Your task to perform on an android device: Open CNN.com Image 0: 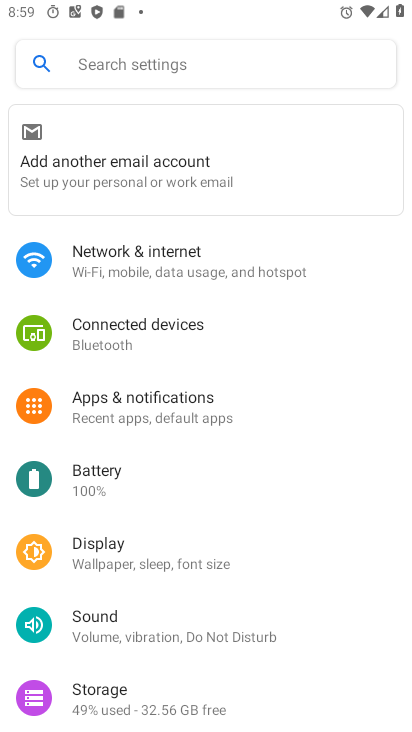
Step 0: press home button
Your task to perform on an android device: Open CNN.com Image 1: 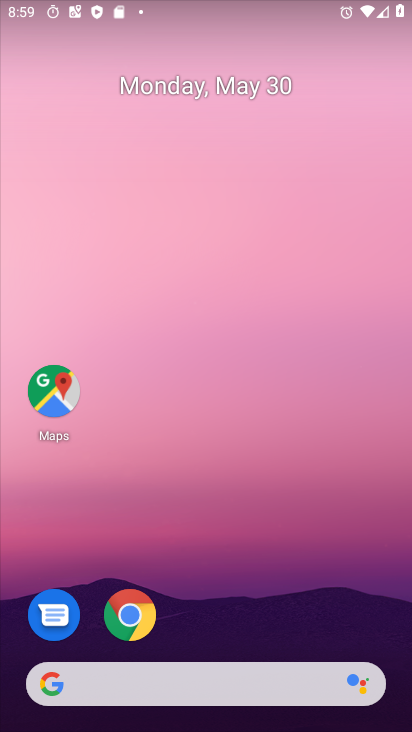
Step 1: drag from (341, 540) to (331, 80)
Your task to perform on an android device: Open CNN.com Image 2: 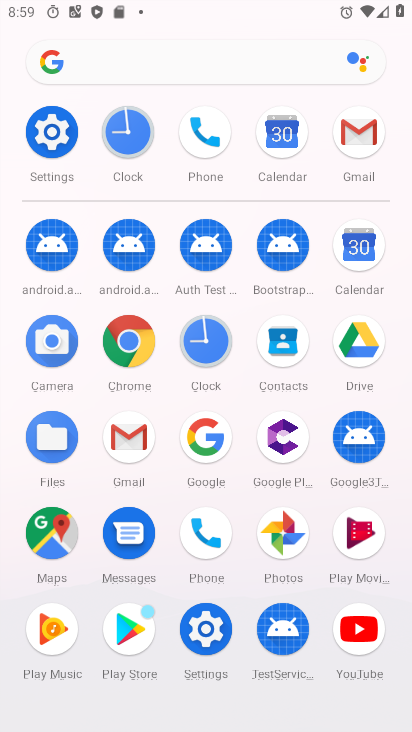
Step 2: click (135, 355)
Your task to perform on an android device: Open CNN.com Image 3: 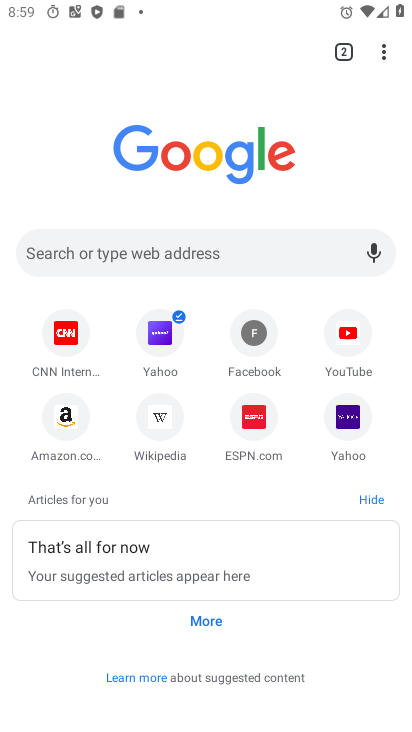
Step 3: click (51, 357)
Your task to perform on an android device: Open CNN.com Image 4: 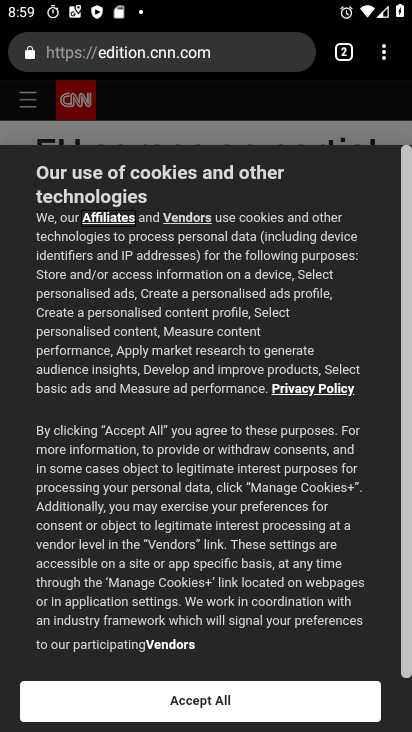
Step 4: task complete